Your task to perform on an android device: Find coffee shops on Maps Image 0: 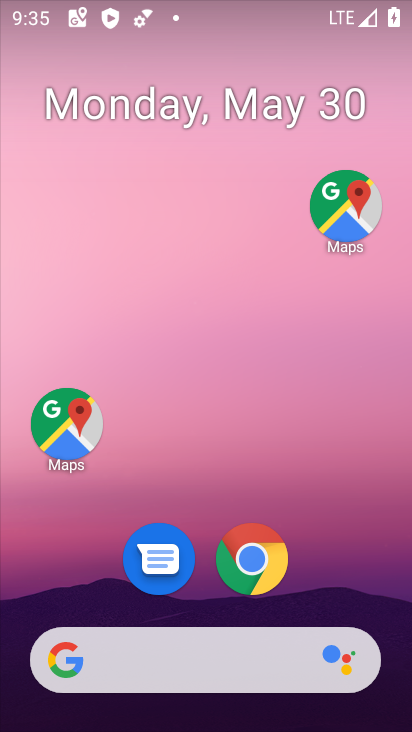
Step 0: click (67, 414)
Your task to perform on an android device: Find coffee shops on Maps Image 1: 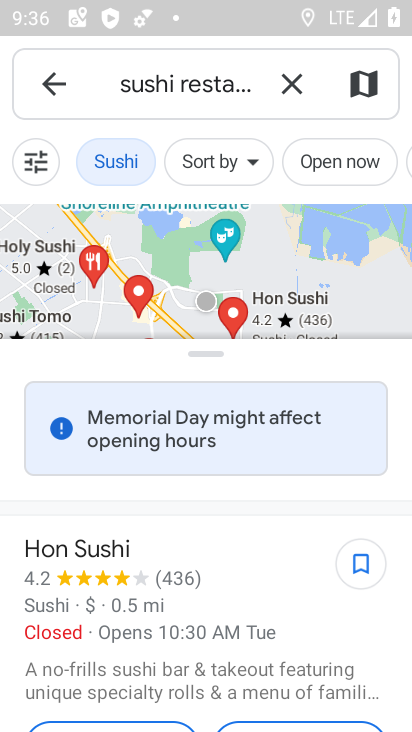
Step 1: click (215, 86)
Your task to perform on an android device: Find coffee shops on Maps Image 2: 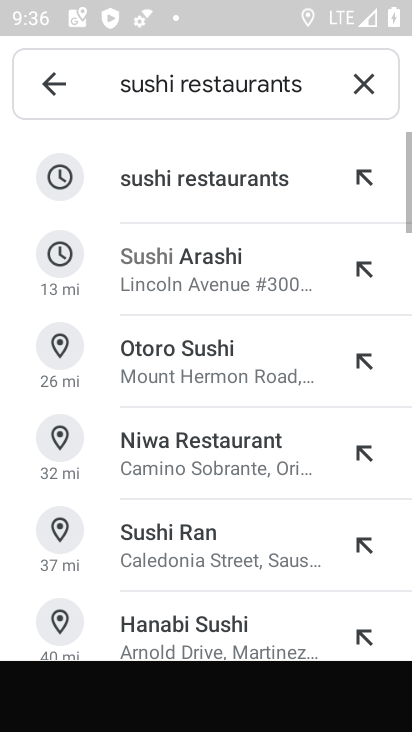
Step 2: click (361, 74)
Your task to perform on an android device: Find coffee shops on Maps Image 3: 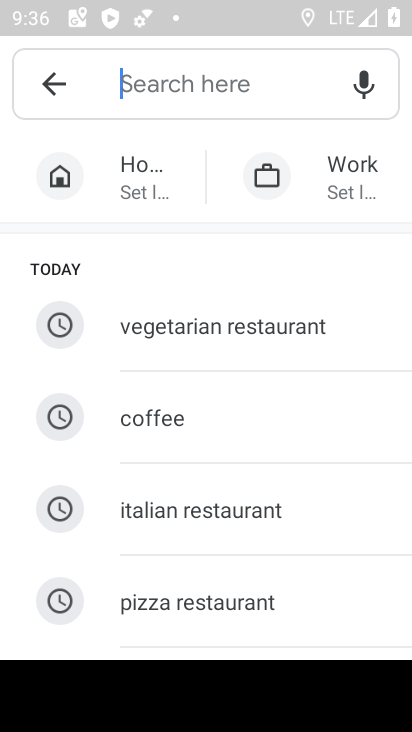
Step 3: type "coffee shops"
Your task to perform on an android device: Find coffee shops on Maps Image 4: 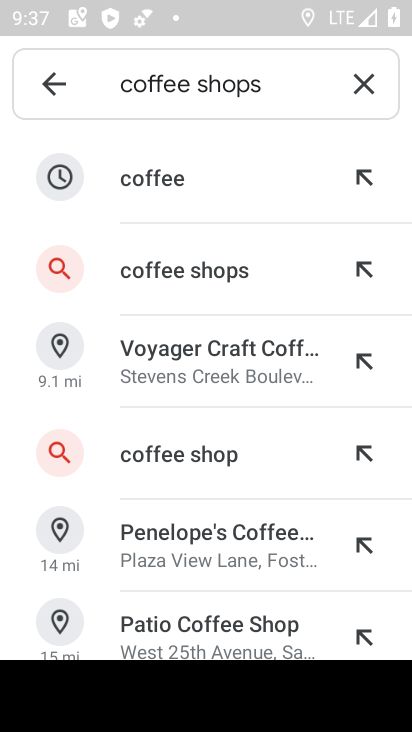
Step 4: click (216, 270)
Your task to perform on an android device: Find coffee shops on Maps Image 5: 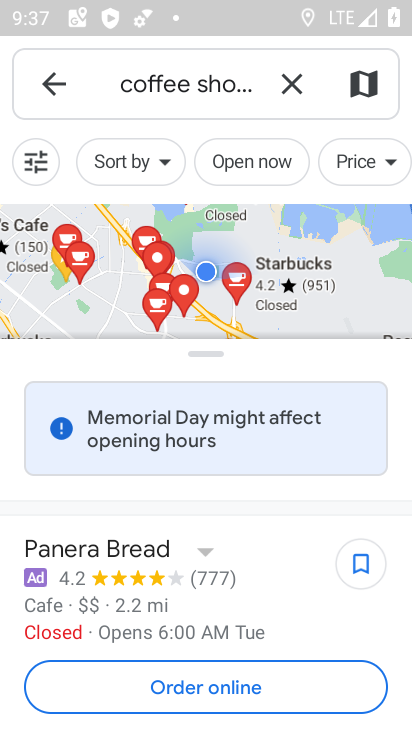
Step 5: task complete